Your task to perform on an android device: turn notification dots off Image 0: 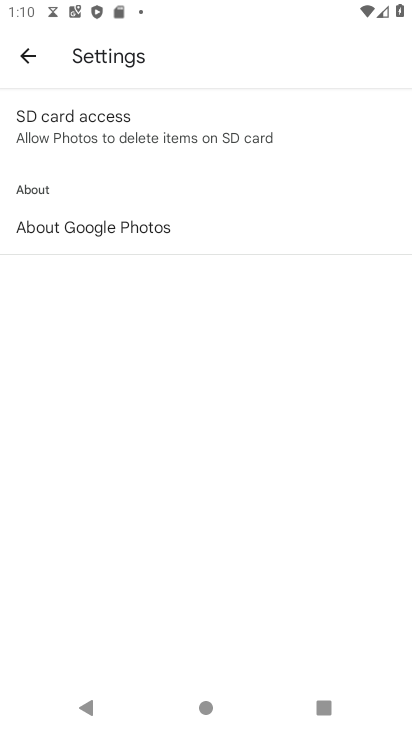
Step 0: press home button
Your task to perform on an android device: turn notification dots off Image 1: 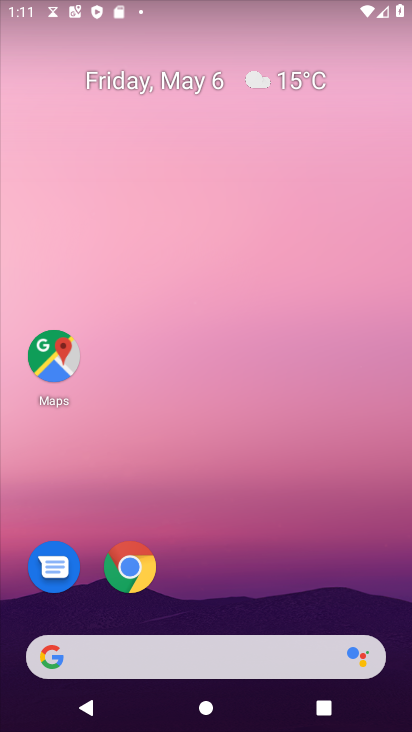
Step 1: drag from (305, 439) to (285, 41)
Your task to perform on an android device: turn notification dots off Image 2: 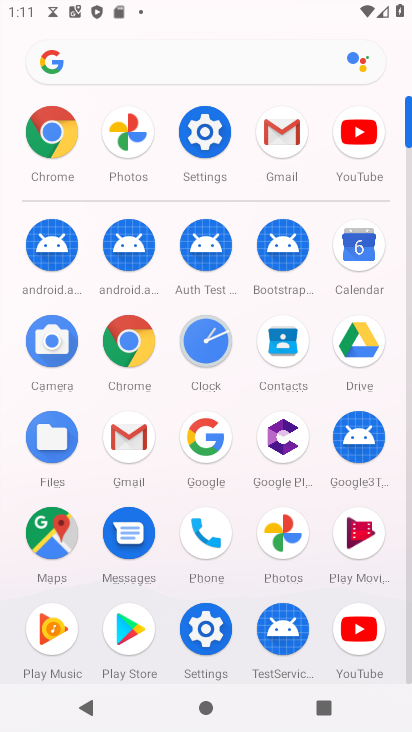
Step 2: click (216, 132)
Your task to perform on an android device: turn notification dots off Image 3: 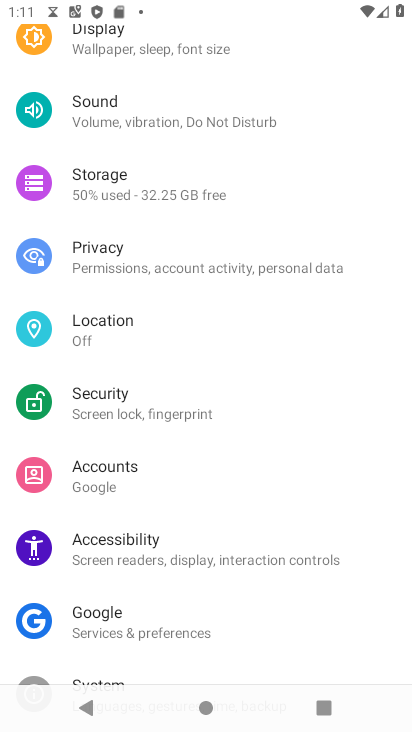
Step 3: drag from (240, 252) to (308, 592)
Your task to perform on an android device: turn notification dots off Image 4: 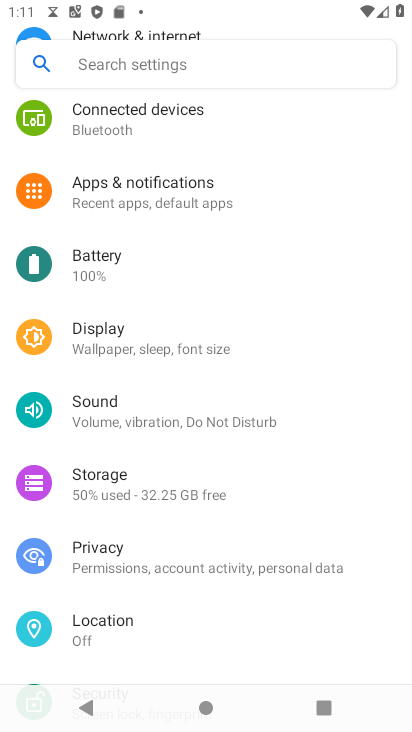
Step 4: drag from (295, 260) to (311, 522)
Your task to perform on an android device: turn notification dots off Image 5: 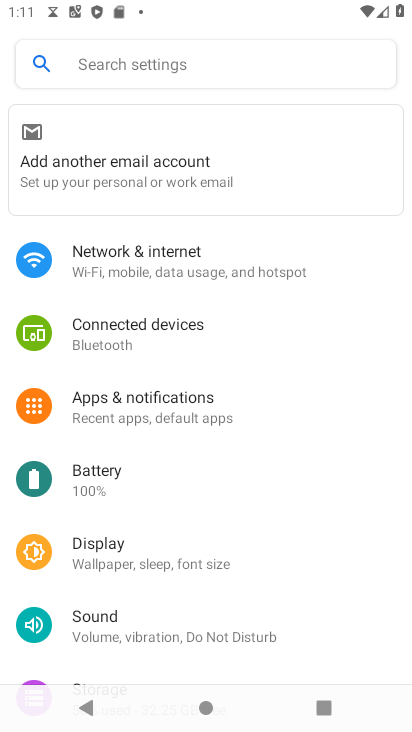
Step 5: click (170, 407)
Your task to perform on an android device: turn notification dots off Image 6: 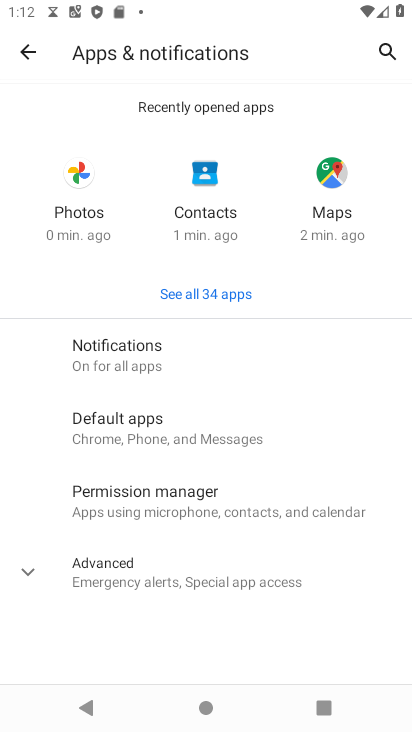
Step 6: click (133, 348)
Your task to perform on an android device: turn notification dots off Image 7: 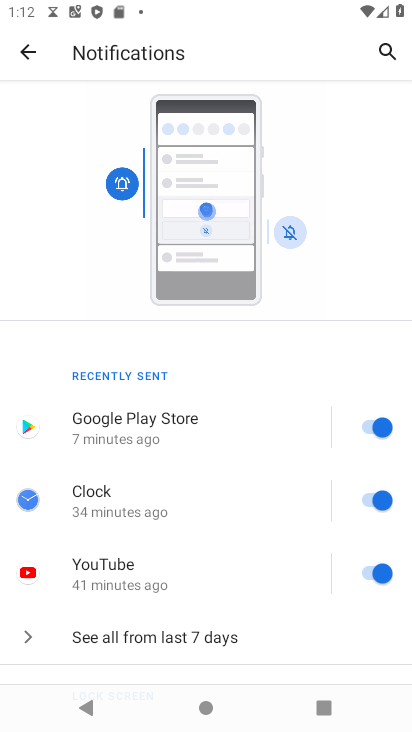
Step 7: drag from (84, 559) to (79, 245)
Your task to perform on an android device: turn notification dots off Image 8: 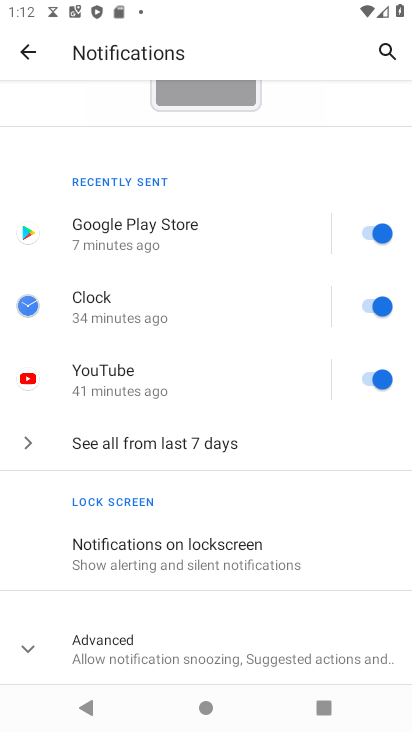
Step 8: drag from (197, 603) to (261, 261)
Your task to perform on an android device: turn notification dots off Image 9: 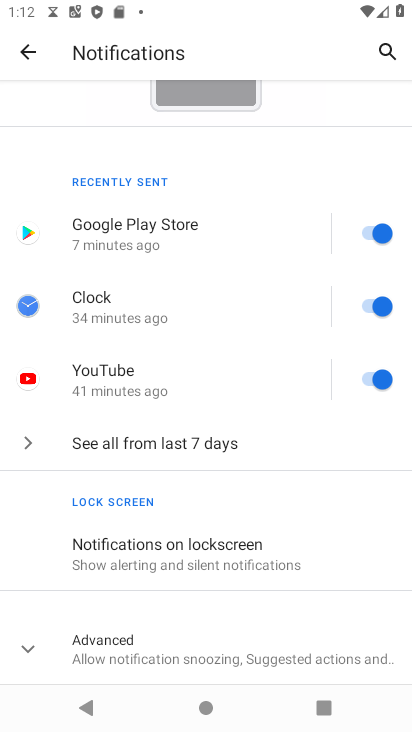
Step 9: click (131, 647)
Your task to perform on an android device: turn notification dots off Image 10: 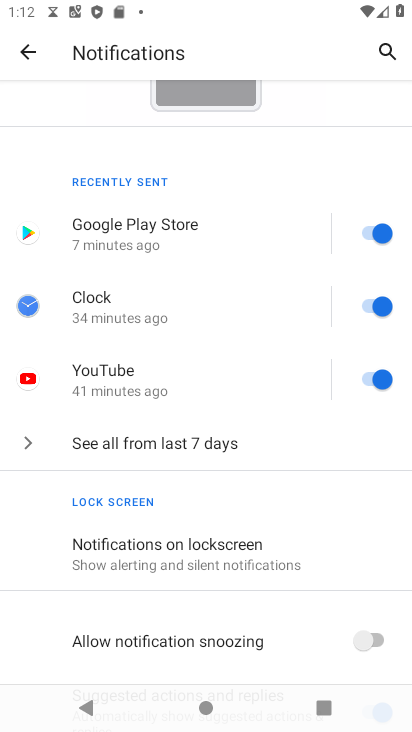
Step 10: task complete